Your task to perform on an android device: Go to Amazon Image 0: 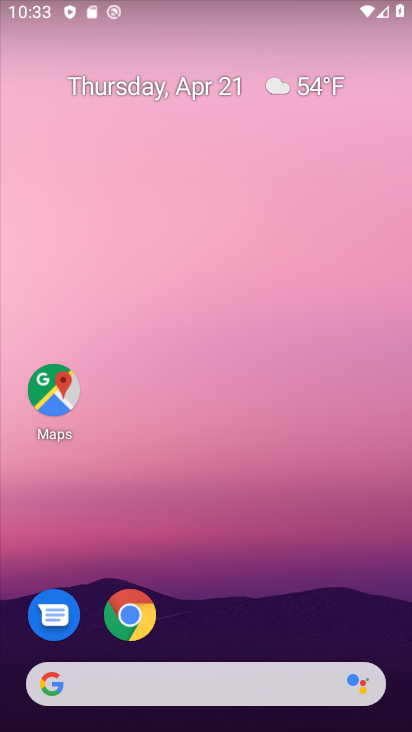
Step 0: drag from (255, 635) to (287, 207)
Your task to perform on an android device: Go to Amazon Image 1: 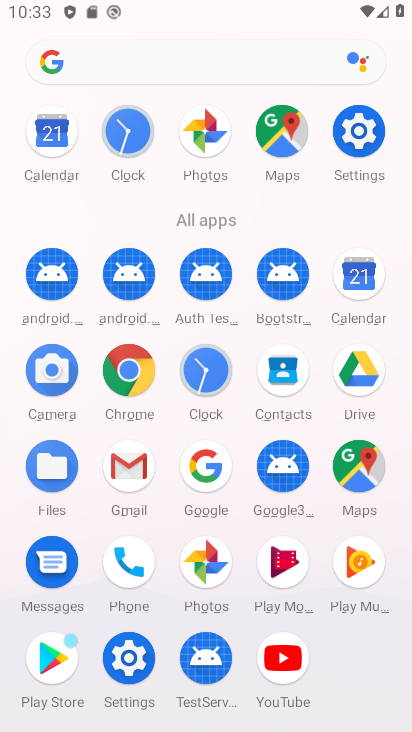
Step 1: click (121, 378)
Your task to perform on an android device: Go to Amazon Image 2: 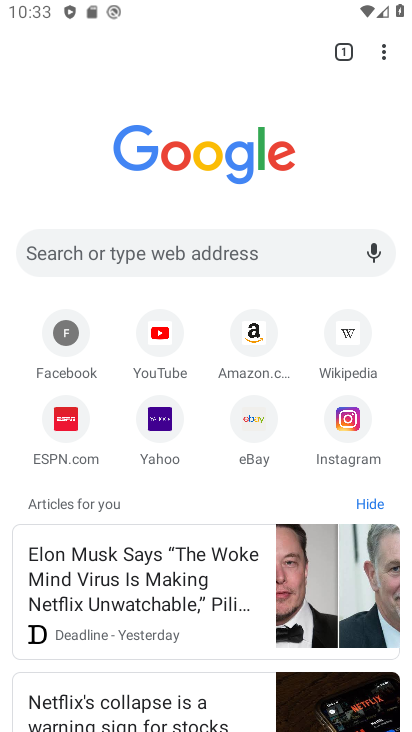
Step 2: click (250, 333)
Your task to perform on an android device: Go to Amazon Image 3: 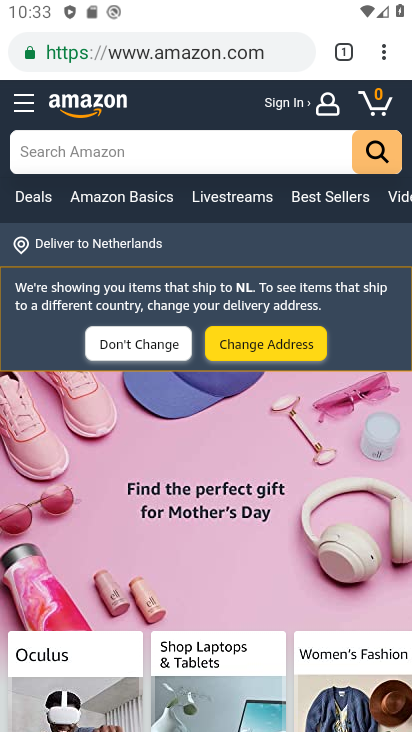
Step 3: task complete